Your task to perform on an android device: turn on translation in the chrome app Image 0: 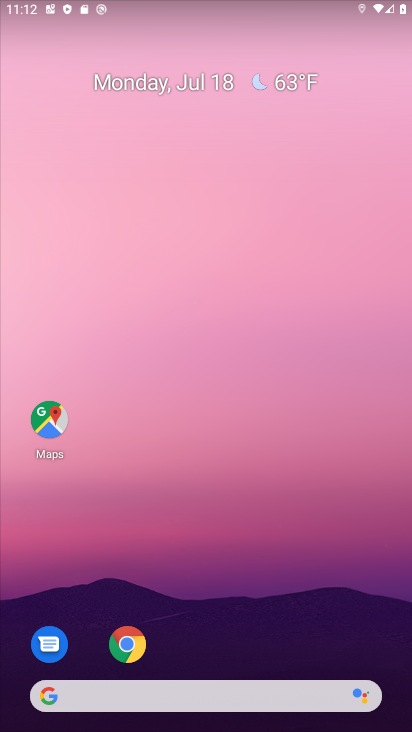
Step 0: drag from (239, 699) to (241, 106)
Your task to perform on an android device: turn on translation in the chrome app Image 1: 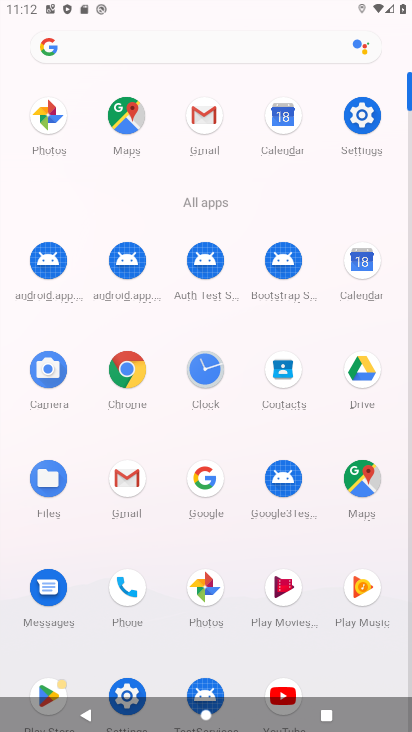
Step 1: click (123, 375)
Your task to perform on an android device: turn on translation in the chrome app Image 2: 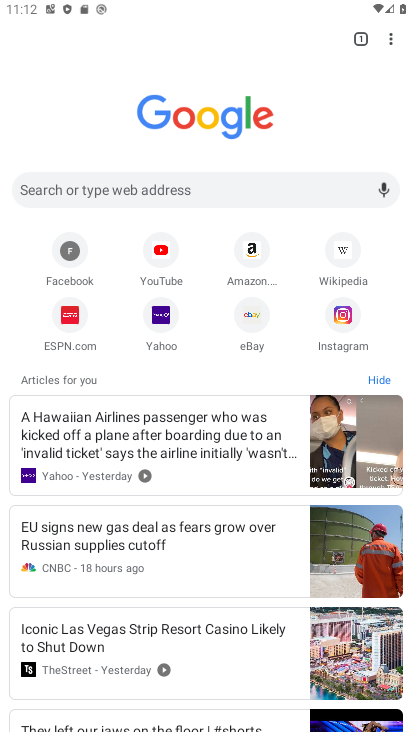
Step 2: click (391, 38)
Your task to perform on an android device: turn on translation in the chrome app Image 3: 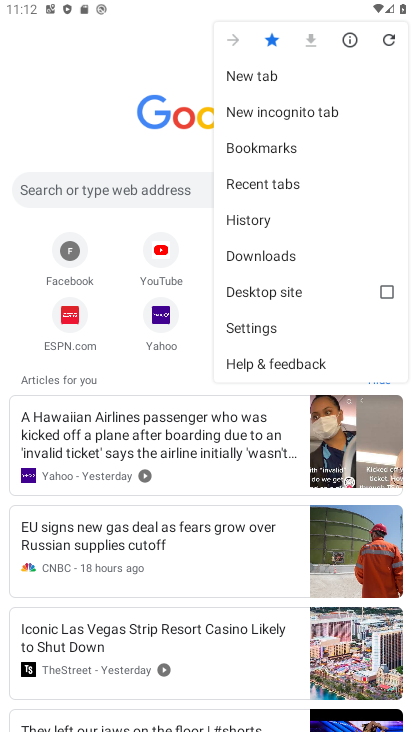
Step 3: click (259, 327)
Your task to perform on an android device: turn on translation in the chrome app Image 4: 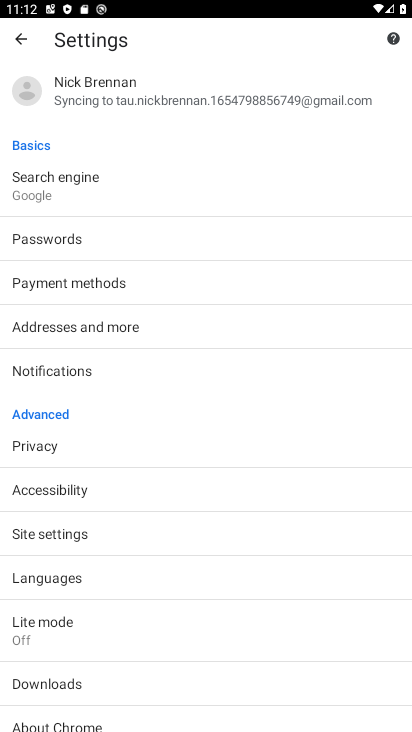
Step 4: click (58, 577)
Your task to perform on an android device: turn on translation in the chrome app Image 5: 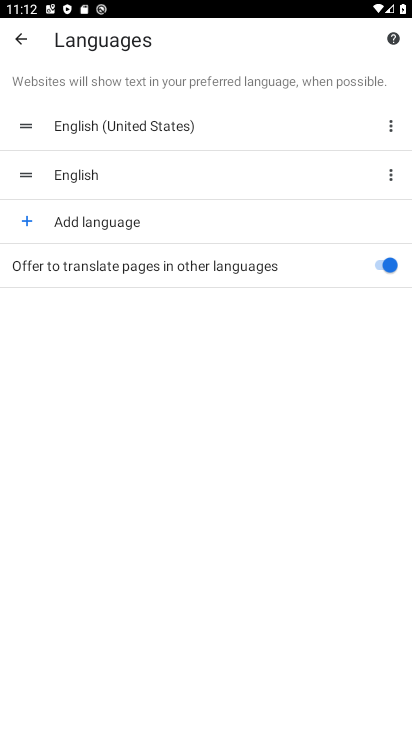
Step 5: task complete